Your task to perform on an android device: create a new album in the google photos Image 0: 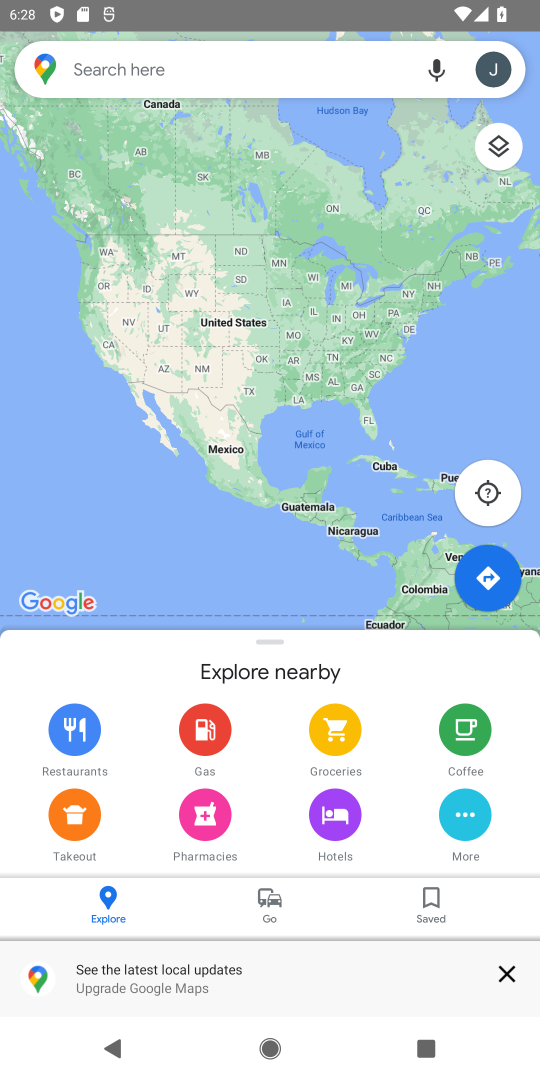
Step 0: press home button
Your task to perform on an android device: create a new album in the google photos Image 1: 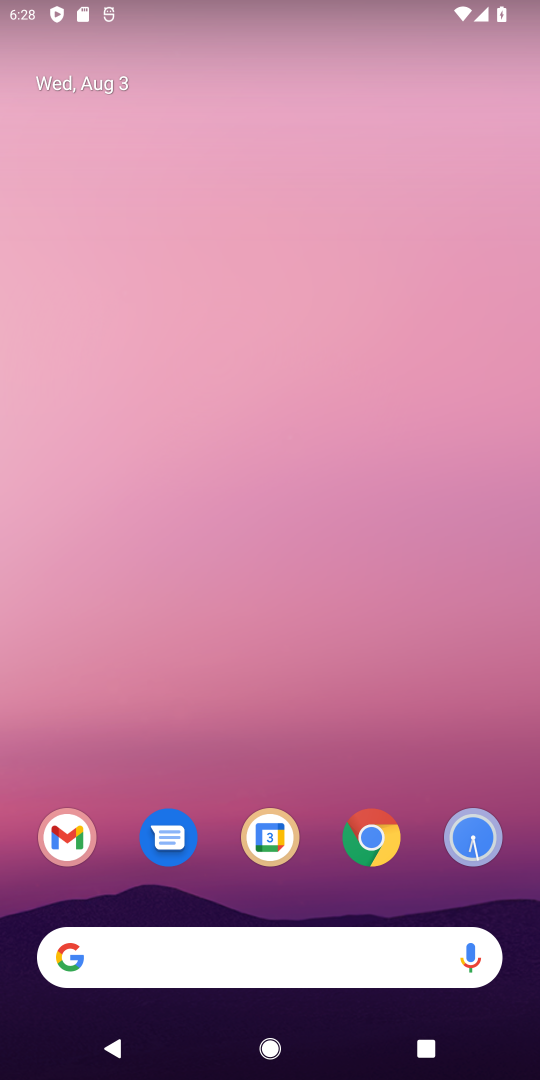
Step 1: drag from (295, 663) to (323, 67)
Your task to perform on an android device: create a new album in the google photos Image 2: 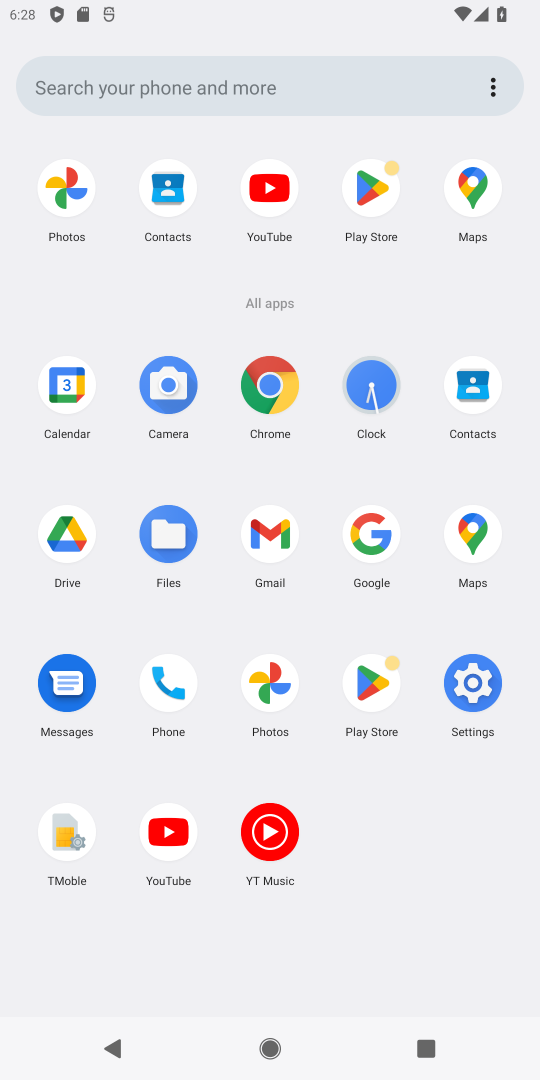
Step 2: click (265, 688)
Your task to perform on an android device: create a new album in the google photos Image 3: 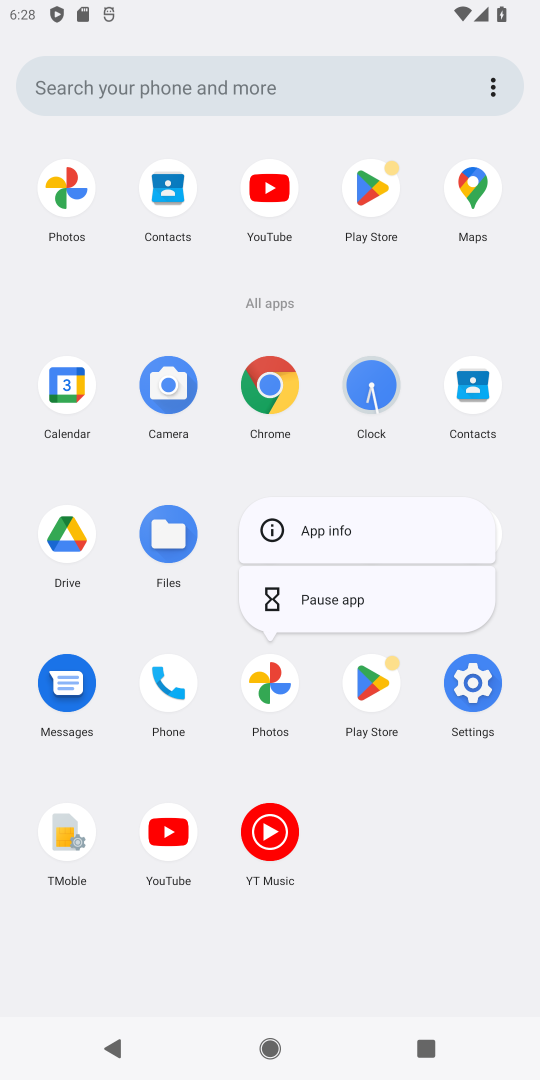
Step 3: click (254, 676)
Your task to perform on an android device: create a new album in the google photos Image 4: 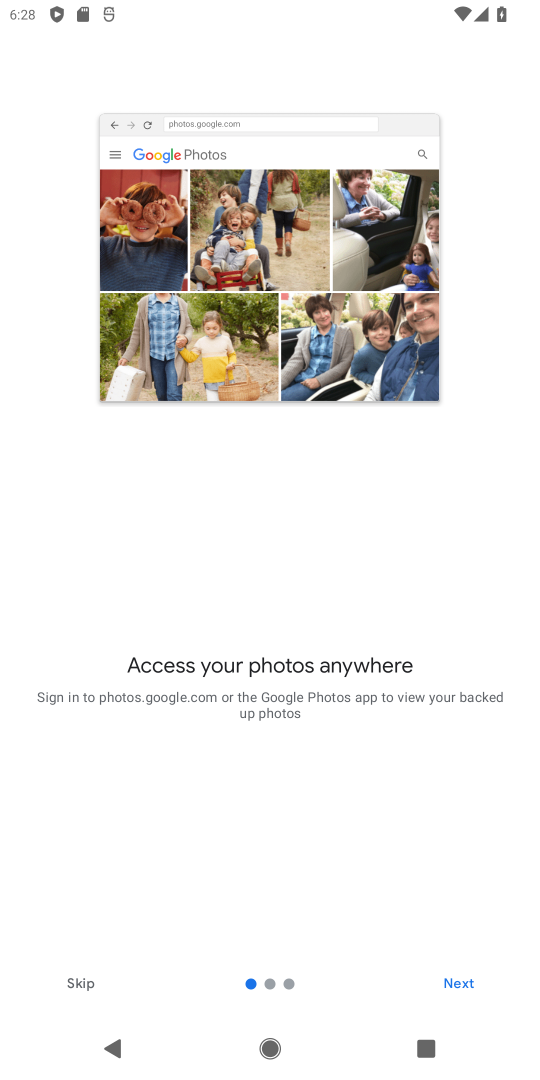
Step 4: click (63, 973)
Your task to perform on an android device: create a new album in the google photos Image 5: 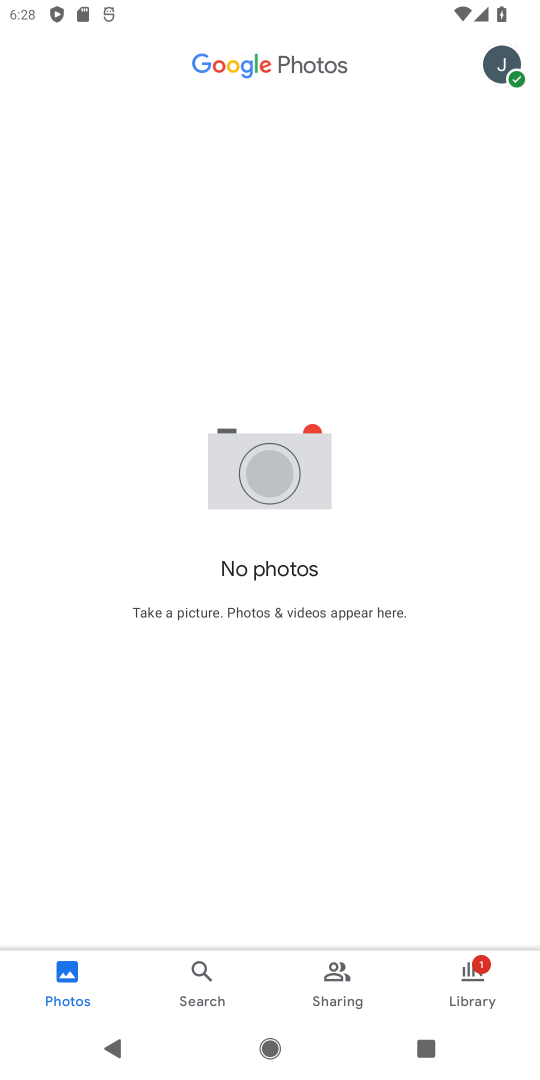
Step 5: click (487, 983)
Your task to perform on an android device: create a new album in the google photos Image 6: 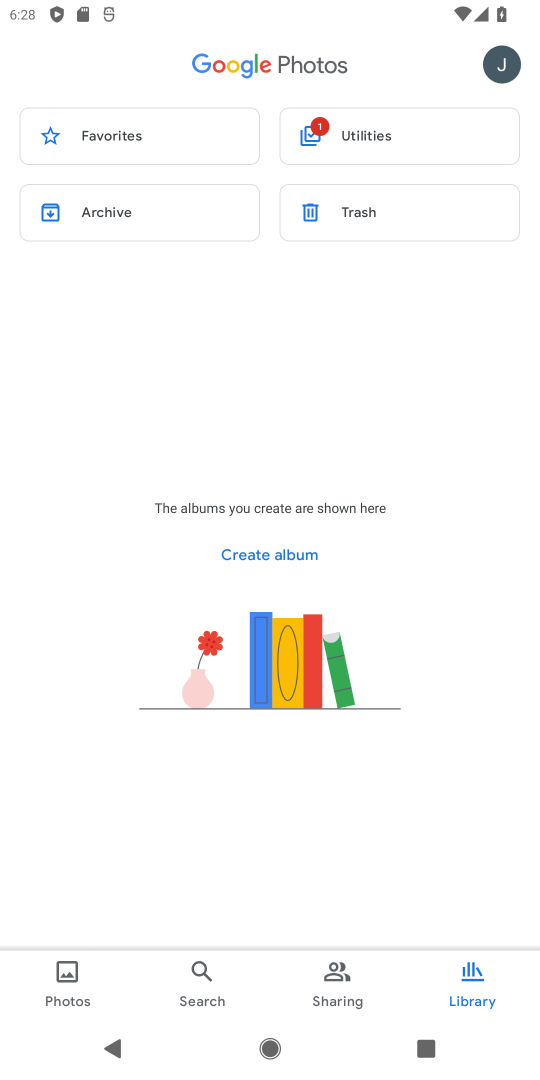
Step 6: click (52, 979)
Your task to perform on an android device: create a new album in the google photos Image 7: 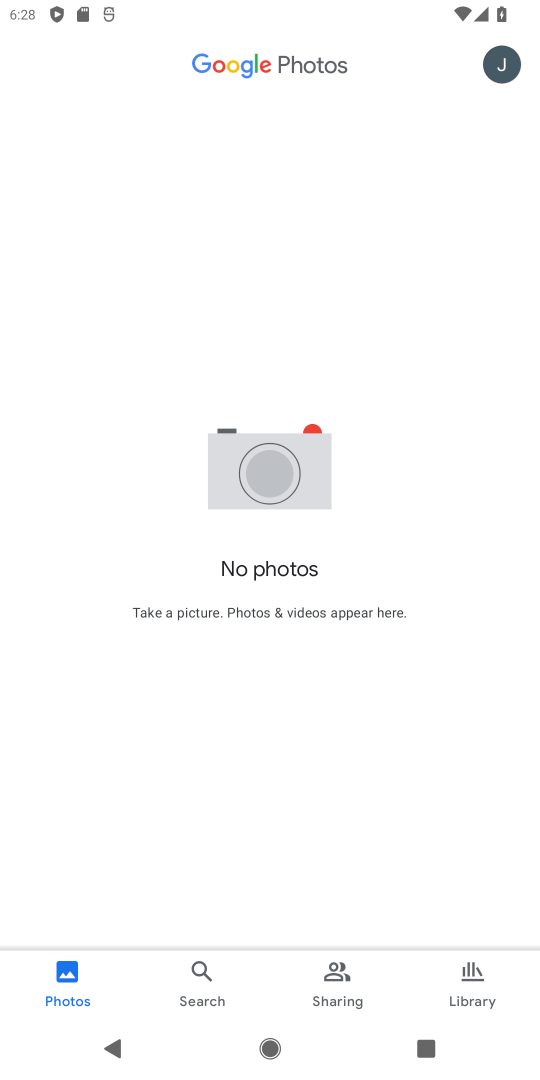
Step 7: task complete